Your task to perform on an android device: star an email in the gmail app Image 0: 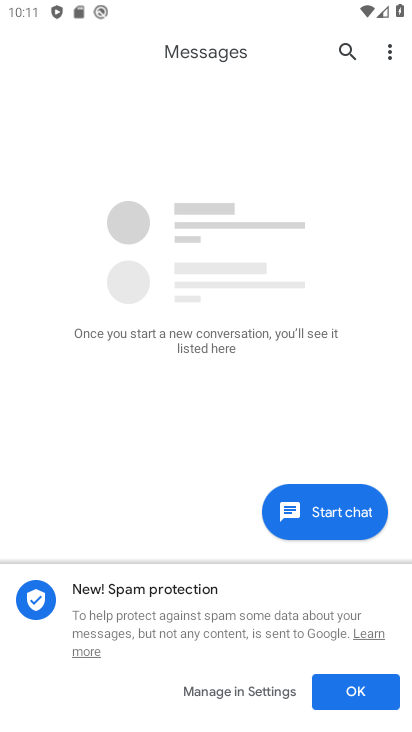
Step 0: press home button
Your task to perform on an android device: star an email in the gmail app Image 1: 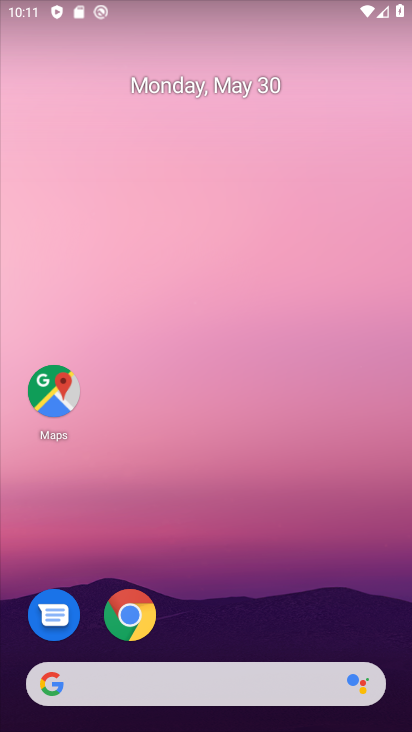
Step 1: drag from (211, 723) to (201, 177)
Your task to perform on an android device: star an email in the gmail app Image 2: 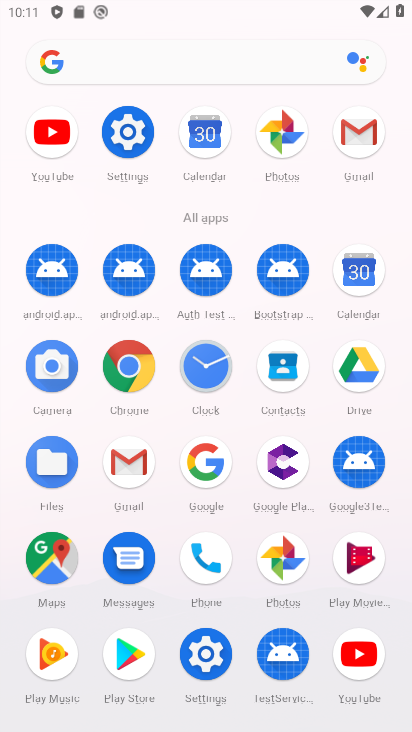
Step 2: click (129, 455)
Your task to perform on an android device: star an email in the gmail app Image 3: 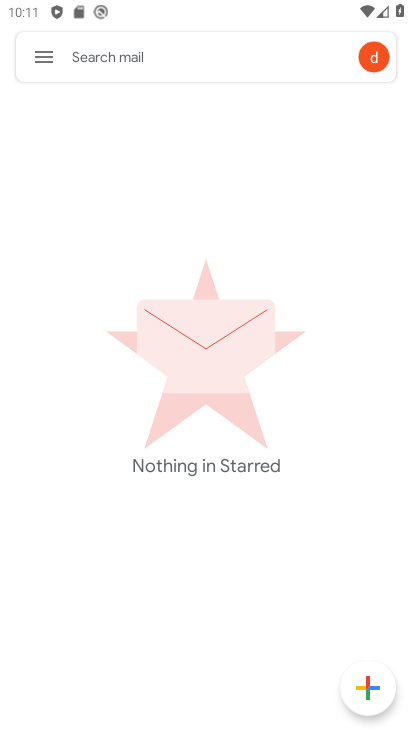
Step 3: click (45, 56)
Your task to perform on an android device: star an email in the gmail app Image 4: 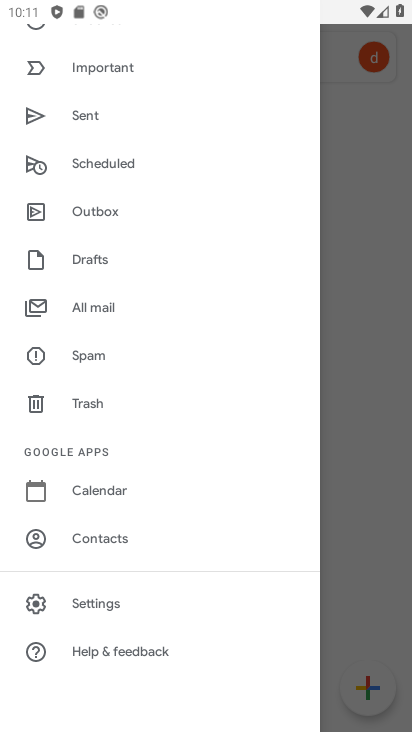
Step 4: drag from (136, 110) to (144, 531)
Your task to perform on an android device: star an email in the gmail app Image 5: 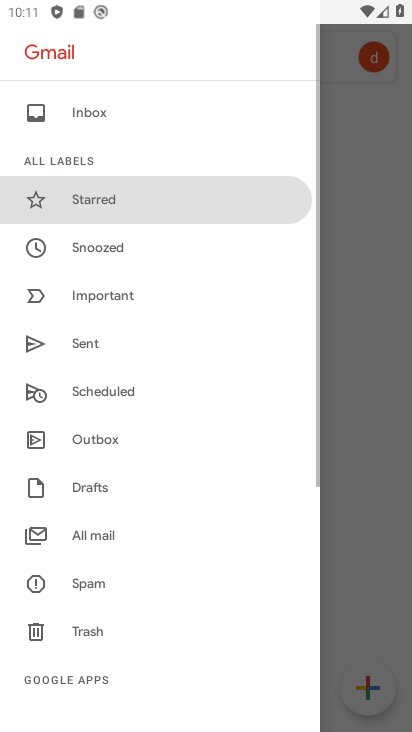
Step 5: click (82, 114)
Your task to perform on an android device: star an email in the gmail app Image 6: 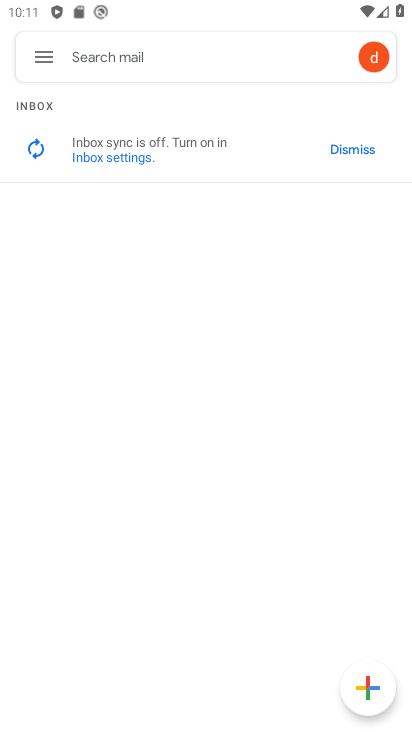
Step 6: task complete